Your task to perform on an android device: Open the Play Movies app and select the watchlist tab. Image 0: 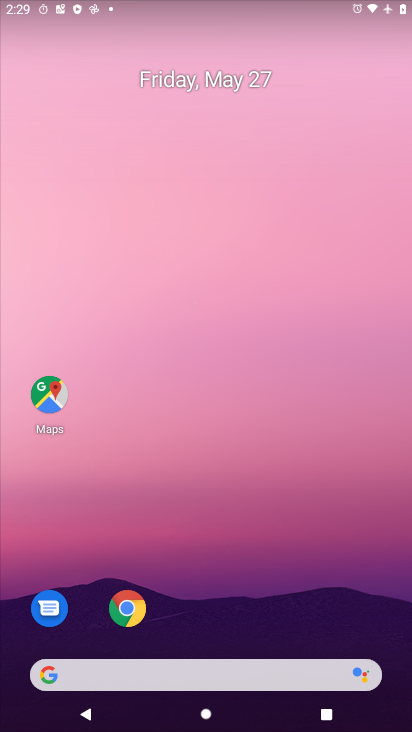
Step 0: press home button
Your task to perform on an android device: Open the Play Movies app and select the watchlist tab. Image 1: 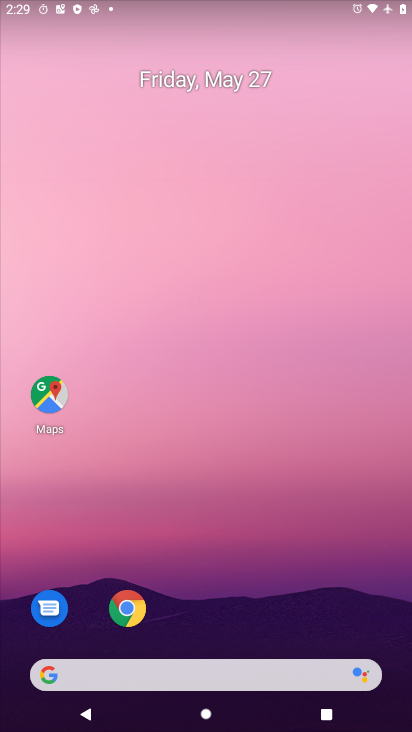
Step 1: drag from (158, 675) to (333, 196)
Your task to perform on an android device: Open the Play Movies app and select the watchlist tab. Image 2: 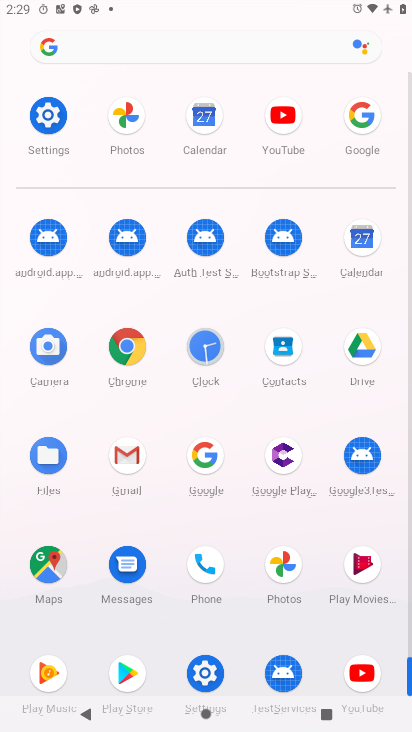
Step 2: click (351, 574)
Your task to perform on an android device: Open the Play Movies app and select the watchlist tab. Image 3: 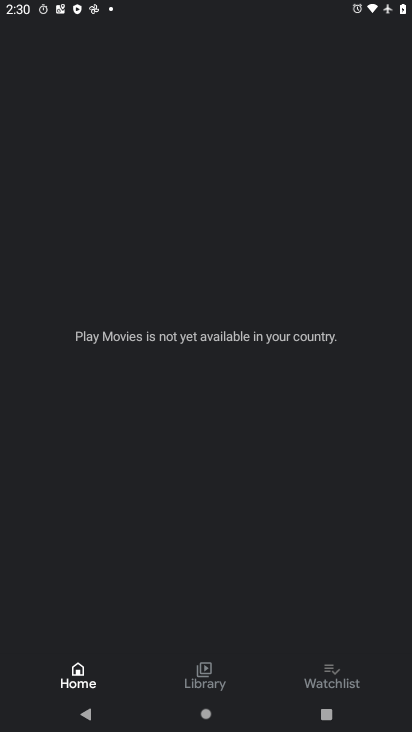
Step 3: click (341, 679)
Your task to perform on an android device: Open the Play Movies app and select the watchlist tab. Image 4: 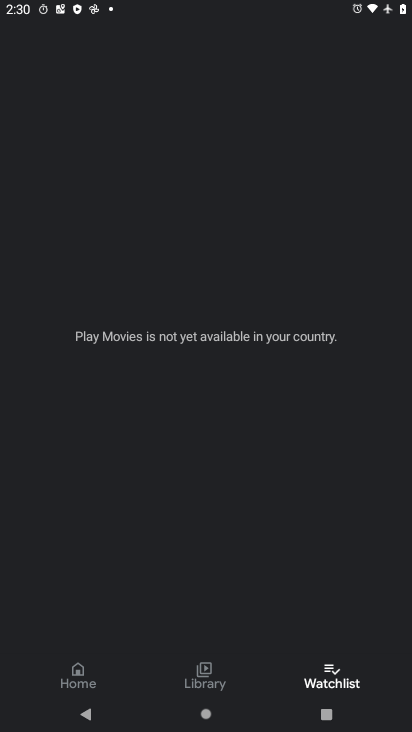
Step 4: task complete